Your task to perform on an android device: Open Google Maps Image 0: 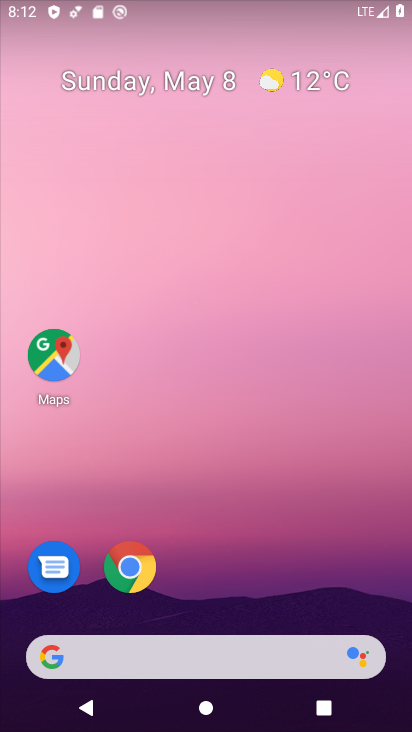
Step 0: click (167, 2)
Your task to perform on an android device: Open Google Maps Image 1: 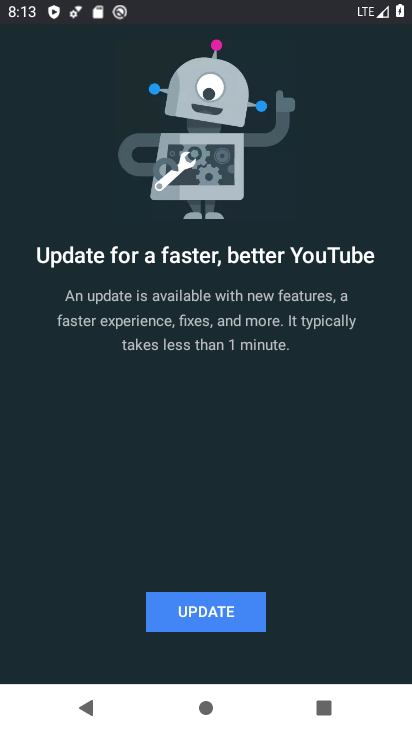
Step 1: press home button
Your task to perform on an android device: Open Google Maps Image 2: 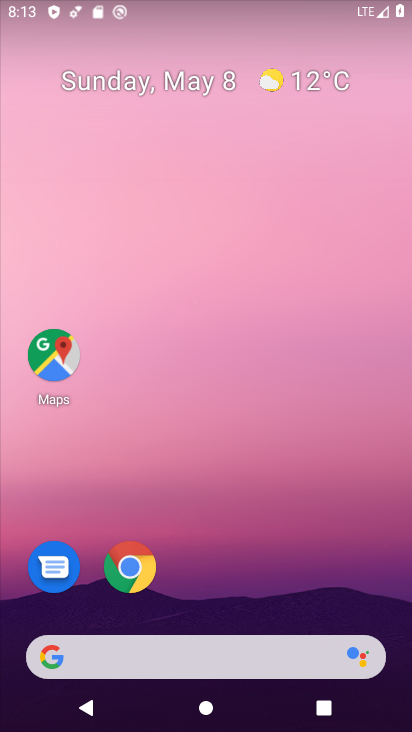
Step 2: drag from (215, 655) to (335, 40)
Your task to perform on an android device: Open Google Maps Image 3: 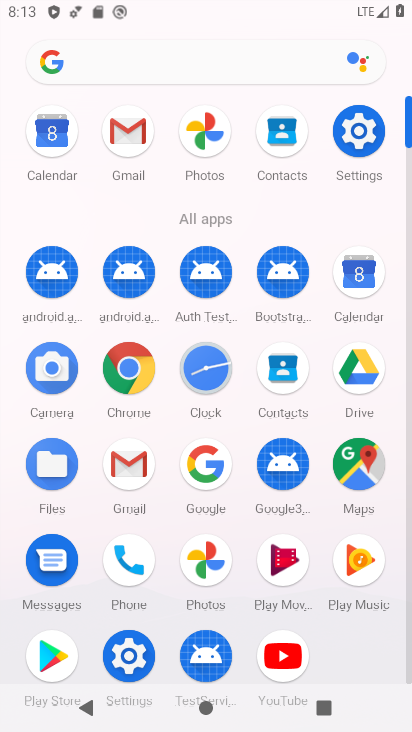
Step 3: click (352, 467)
Your task to perform on an android device: Open Google Maps Image 4: 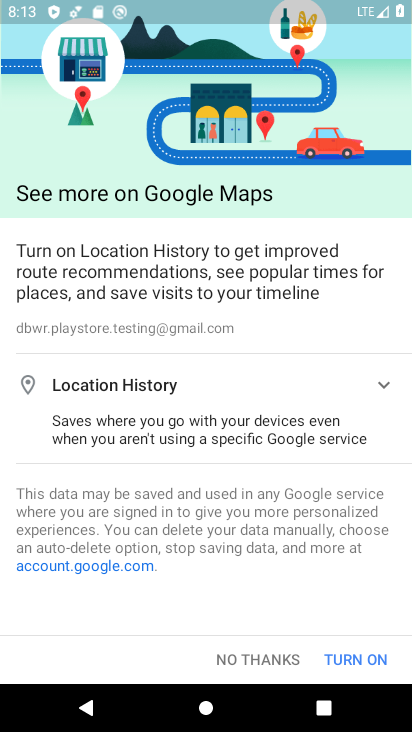
Step 4: click (340, 655)
Your task to perform on an android device: Open Google Maps Image 5: 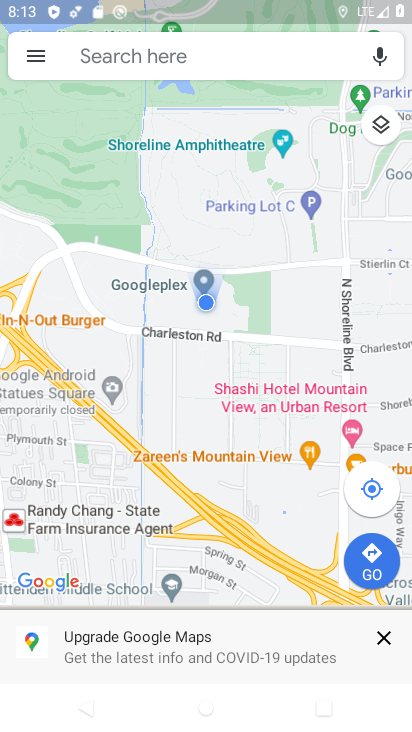
Step 5: task complete